Your task to perform on an android device: change text size in settings app Image 0: 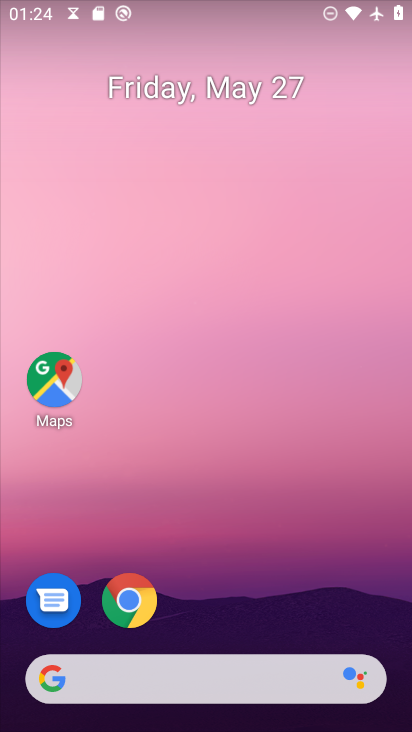
Step 0: drag from (228, 563) to (220, 97)
Your task to perform on an android device: change text size in settings app Image 1: 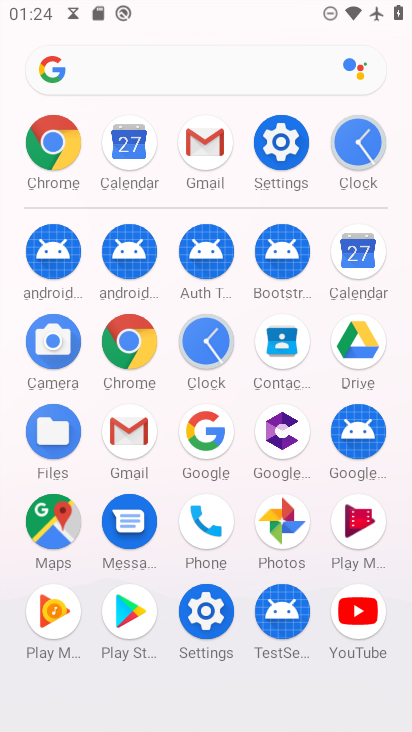
Step 1: click (304, 151)
Your task to perform on an android device: change text size in settings app Image 2: 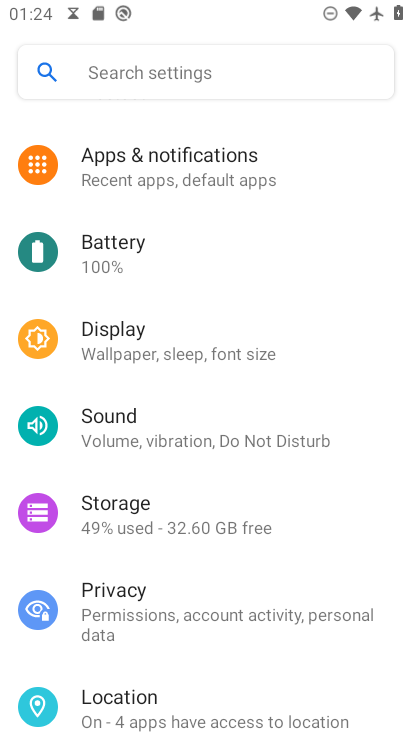
Step 2: click (135, 339)
Your task to perform on an android device: change text size in settings app Image 3: 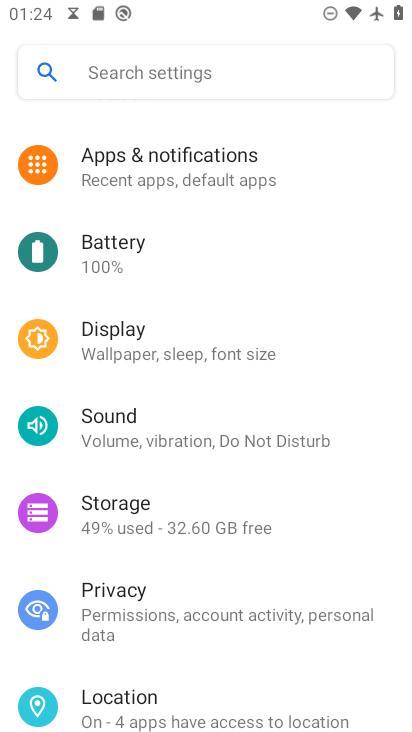
Step 3: click (160, 323)
Your task to perform on an android device: change text size in settings app Image 4: 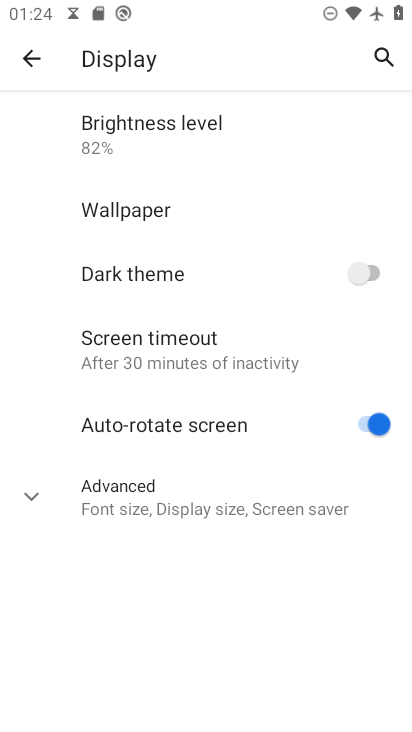
Step 4: click (122, 482)
Your task to perform on an android device: change text size in settings app Image 5: 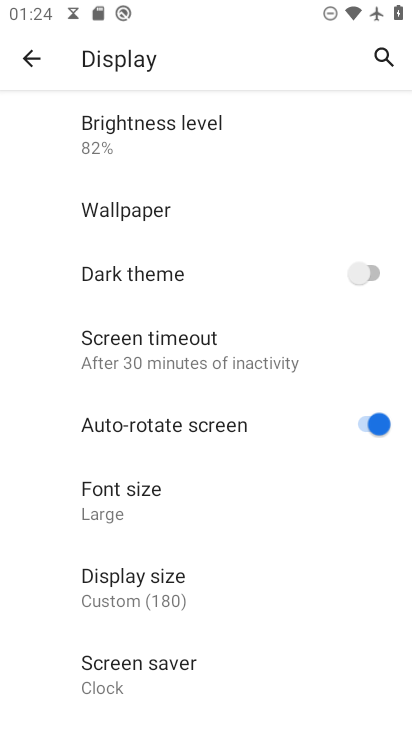
Step 5: click (122, 504)
Your task to perform on an android device: change text size in settings app Image 6: 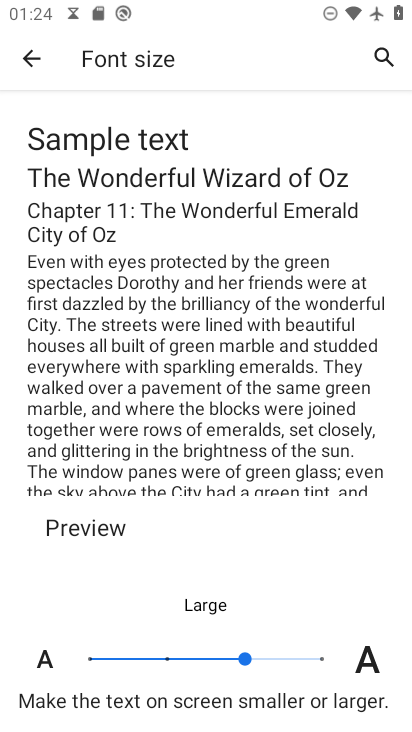
Step 6: click (164, 656)
Your task to perform on an android device: change text size in settings app Image 7: 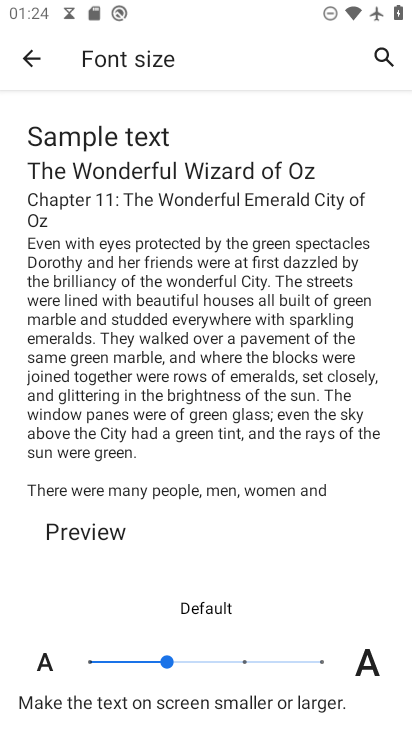
Step 7: task complete